Your task to perform on an android device: check android version Image 0: 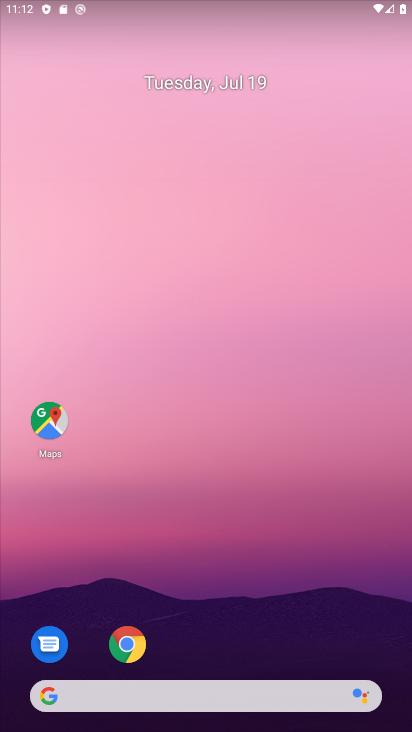
Step 0: drag from (291, 627) to (255, 71)
Your task to perform on an android device: check android version Image 1: 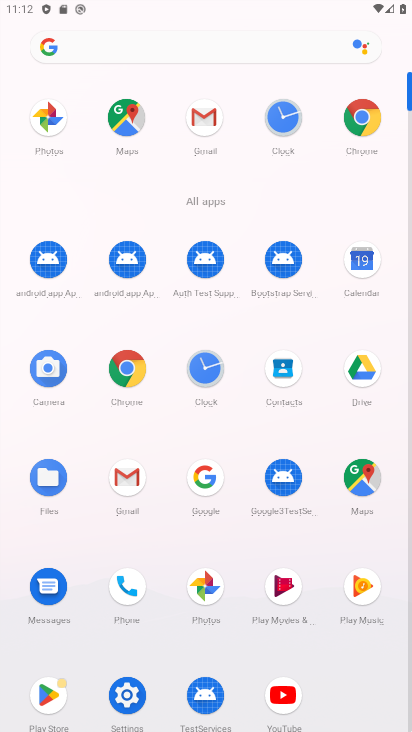
Step 1: click (137, 694)
Your task to perform on an android device: check android version Image 2: 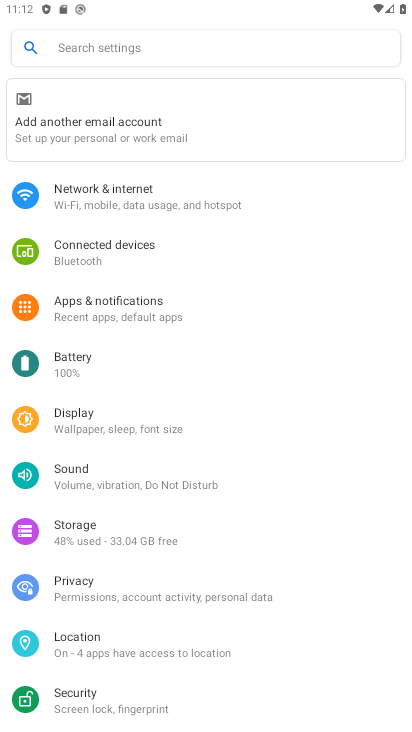
Step 2: task complete